Your task to perform on an android device: delete location history Image 0: 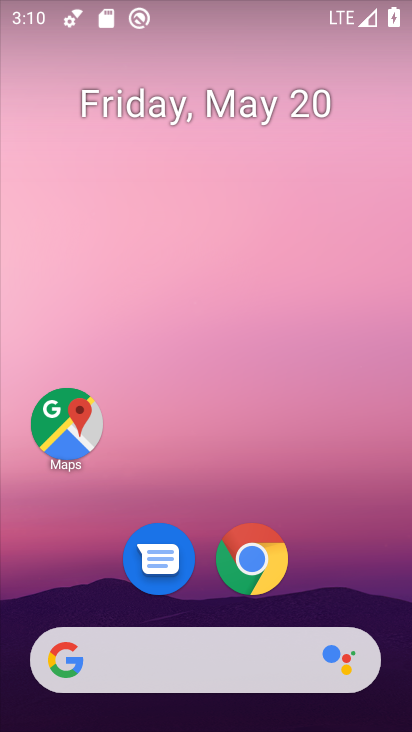
Step 0: click (59, 419)
Your task to perform on an android device: delete location history Image 1: 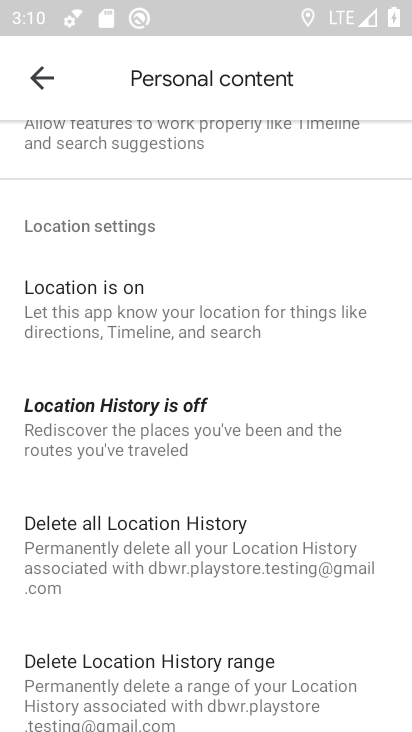
Step 1: click (151, 550)
Your task to perform on an android device: delete location history Image 2: 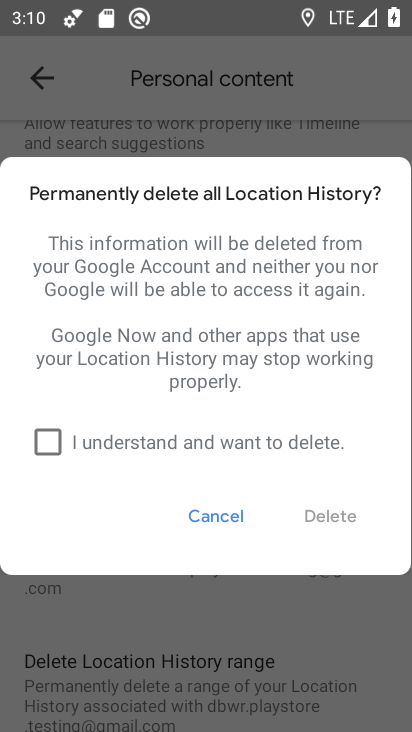
Step 2: click (53, 446)
Your task to perform on an android device: delete location history Image 3: 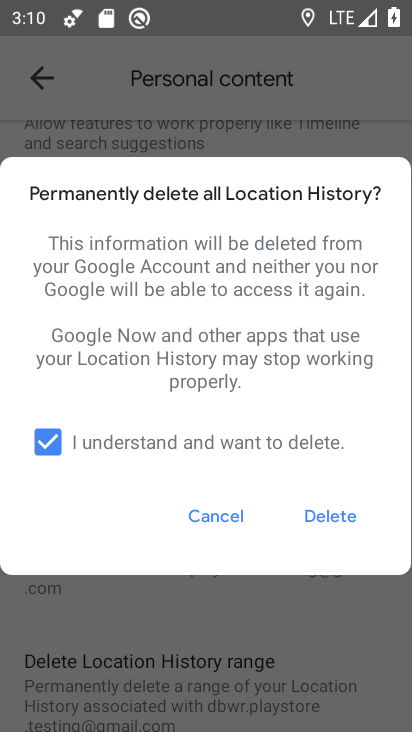
Step 3: click (329, 509)
Your task to perform on an android device: delete location history Image 4: 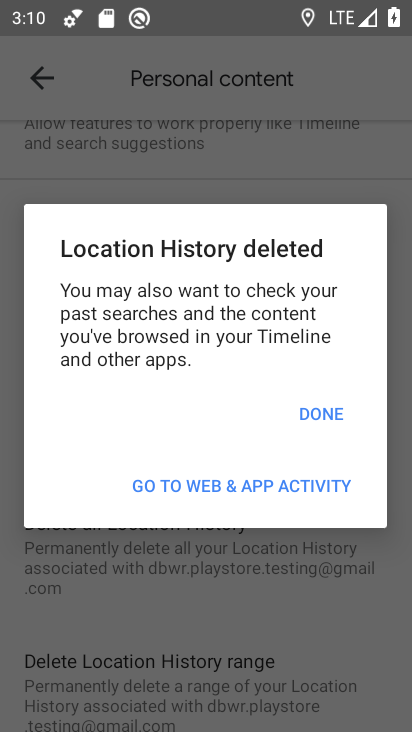
Step 4: click (330, 408)
Your task to perform on an android device: delete location history Image 5: 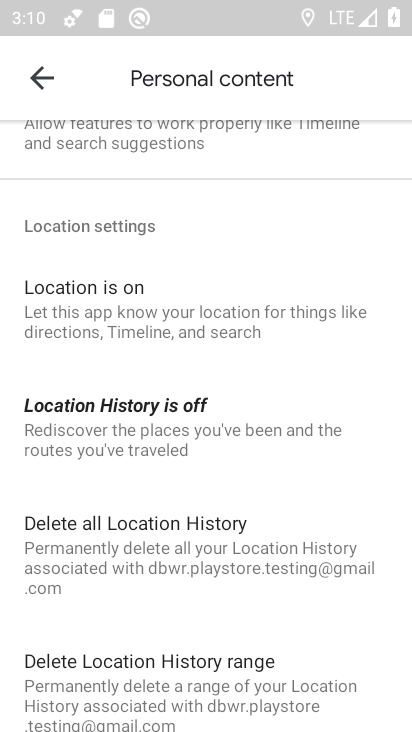
Step 5: task complete